Your task to perform on an android device: add a contact in the contacts app Image 0: 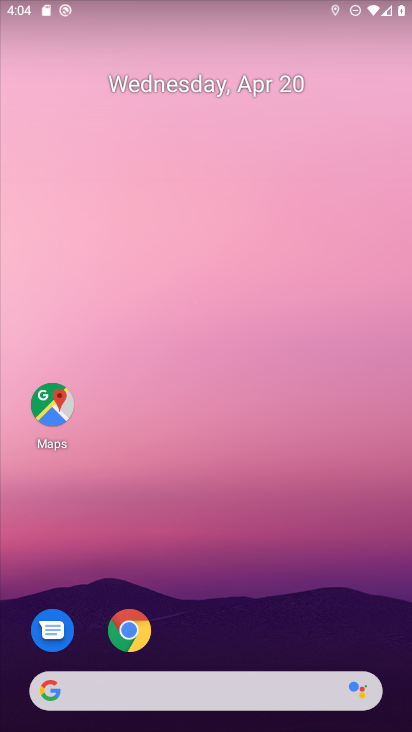
Step 0: drag from (307, 607) to (312, 29)
Your task to perform on an android device: add a contact in the contacts app Image 1: 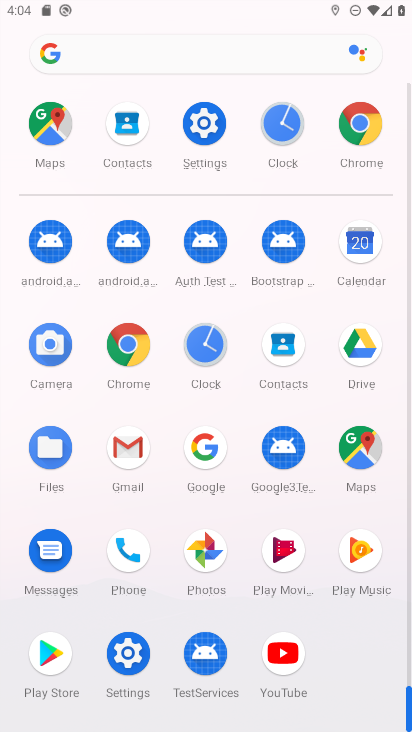
Step 1: click (292, 365)
Your task to perform on an android device: add a contact in the contacts app Image 2: 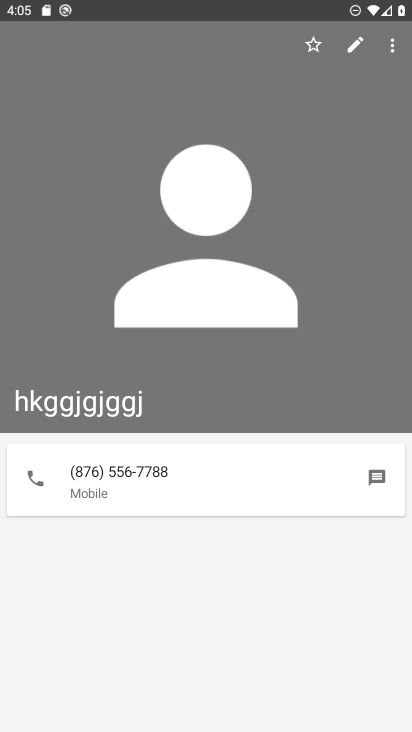
Step 2: press back button
Your task to perform on an android device: add a contact in the contacts app Image 3: 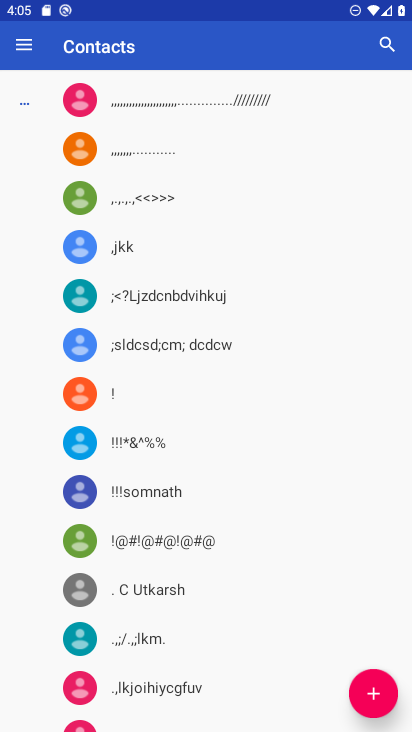
Step 3: click (362, 697)
Your task to perform on an android device: add a contact in the contacts app Image 4: 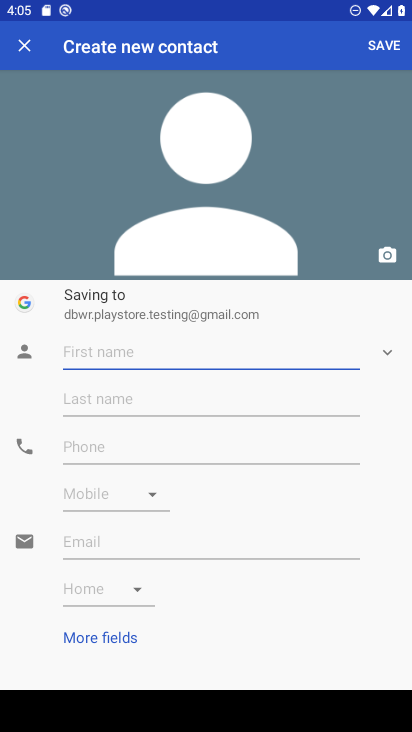
Step 4: type "jkjjjjffguikj"
Your task to perform on an android device: add a contact in the contacts app Image 5: 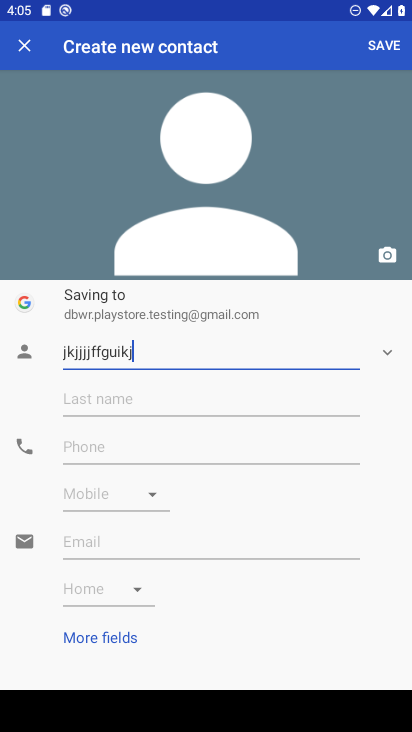
Step 5: click (116, 446)
Your task to perform on an android device: add a contact in the contacts app Image 6: 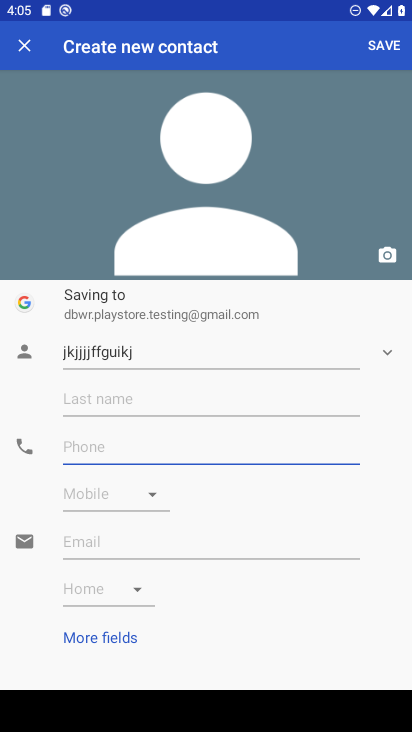
Step 6: type "9876789990"
Your task to perform on an android device: add a contact in the contacts app Image 7: 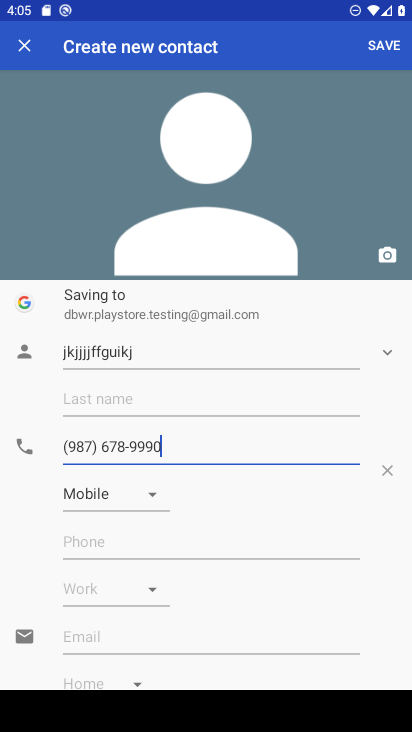
Step 7: click (390, 45)
Your task to perform on an android device: add a contact in the contacts app Image 8: 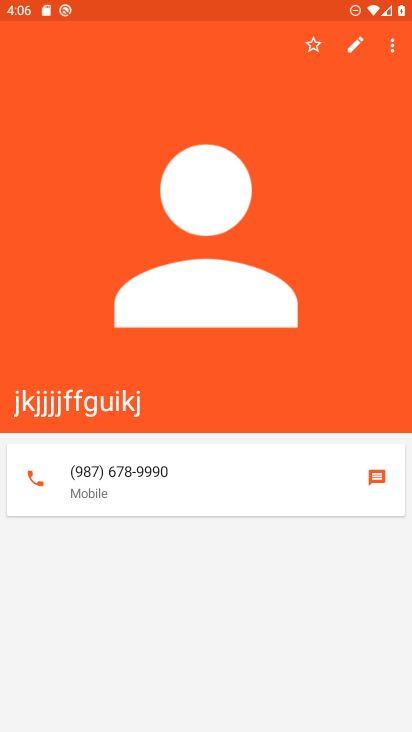
Step 8: task complete